Your task to perform on an android device: Open Google Maps Image 0: 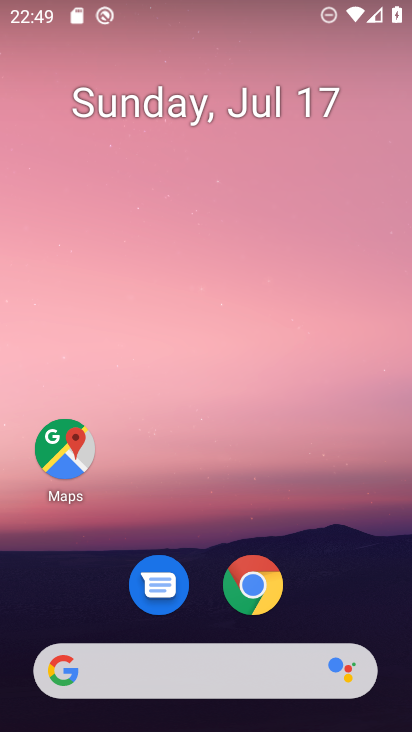
Step 0: click (60, 459)
Your task to perform on an android device: Open Google Maps Image 1: 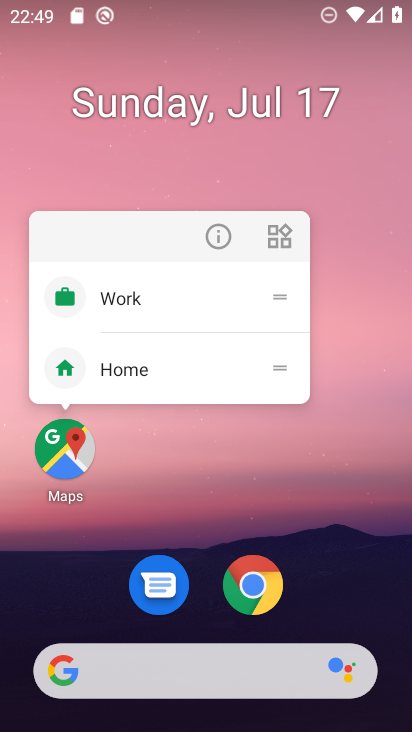
Step 1: click (69, 451)
Your task to perform on an android device: Open Google Maps Image 2: 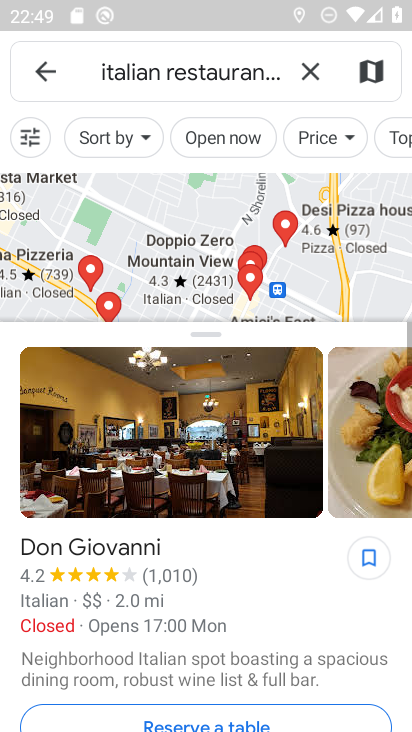
Step 2: click (39, 65)
Your task to perform on an android device: Open Google Maps Image 3: 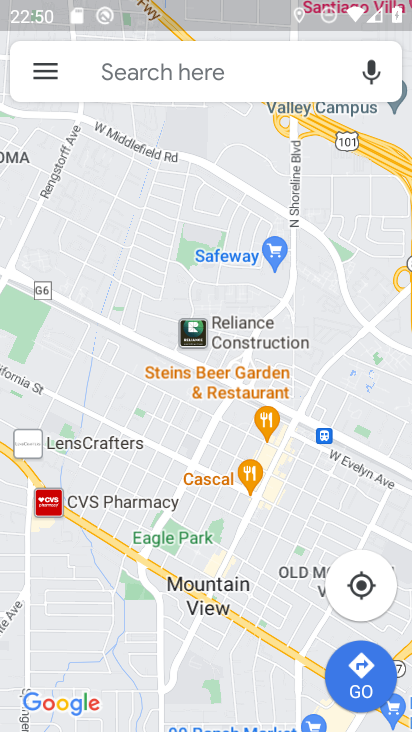
Step 3: task complete